Your task to perform on an android device: Open network settings Image 0: 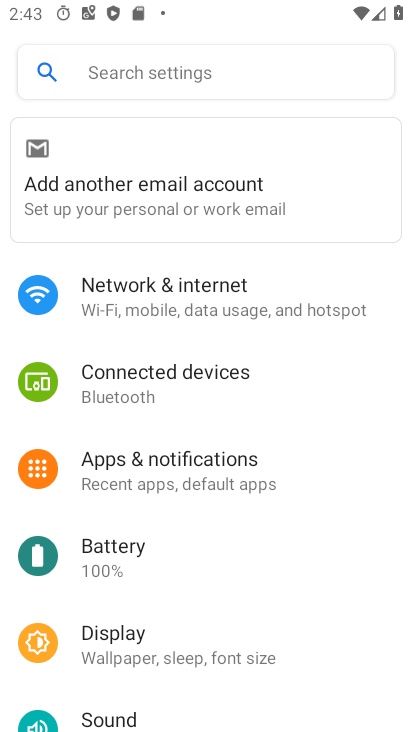
Step 0: press home button
Your task to perform on an android device: Open network settings Image 1: 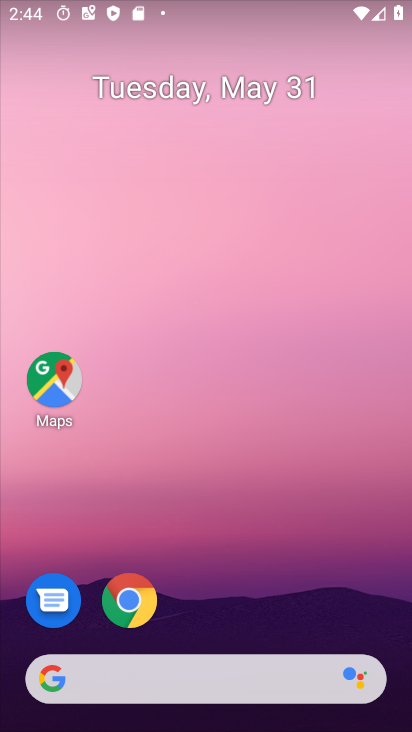
Step 1: drag from (219, 630) to (210, 223)
Your task to perform on an android device: Open network settings Image 2: 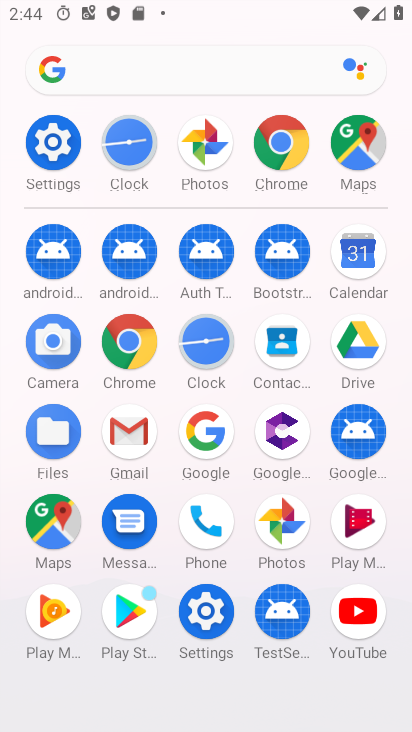
Step 2: click (53, 138)
Your task to perform on an android device: Open network settings Image 3: 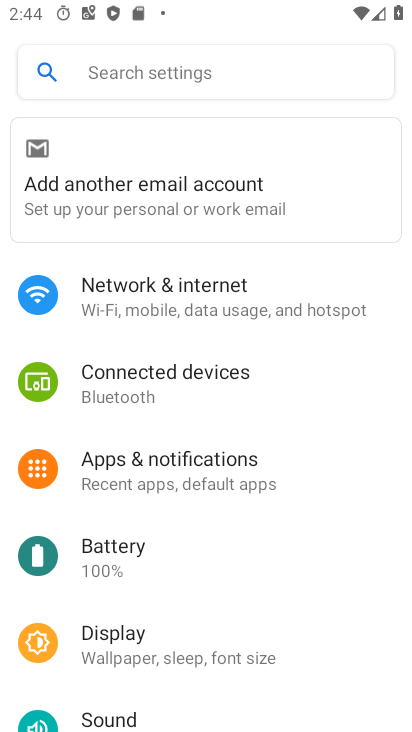
Step 3: click (173, 306)
Your task to perform on an android device: Open network settings Image 4: 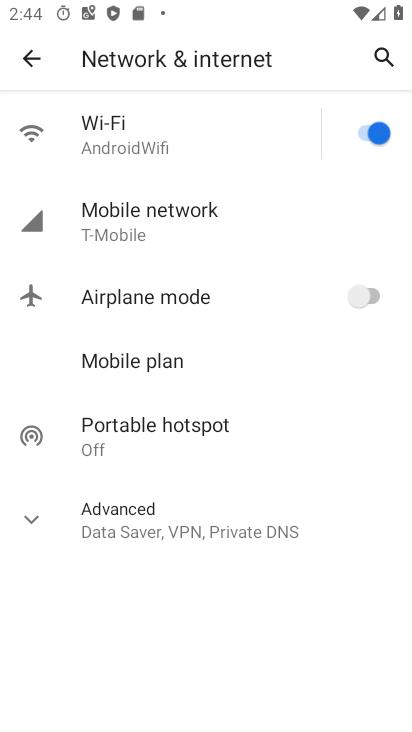
Step 4: click (27, 516)
Your task to perform on an android device: Open network settings Image 5: 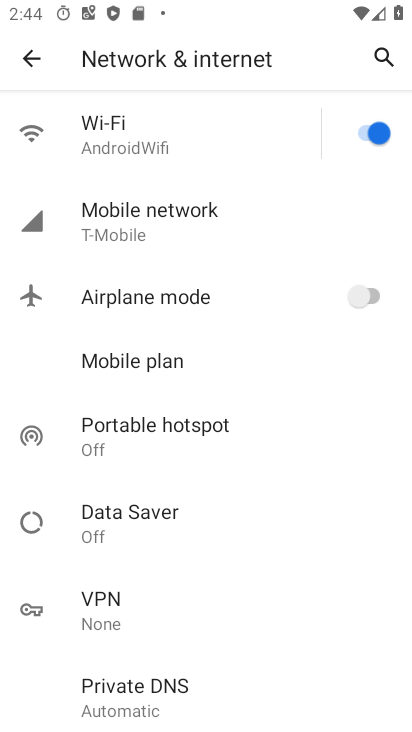
Step 5: task complete